Your task to perform on an android device: Is it going to rain tomorrow? Image 0: 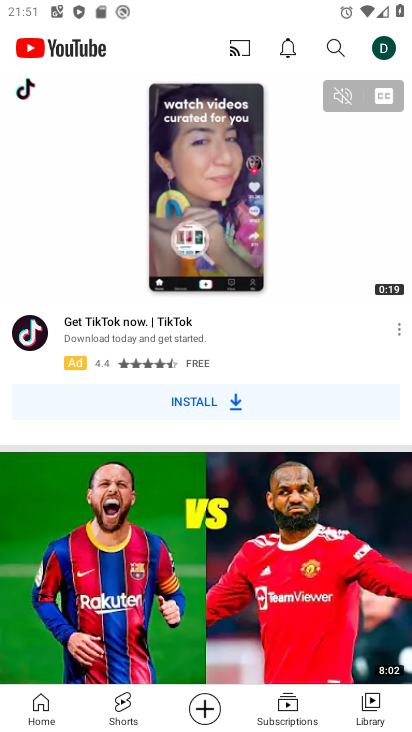
Step 0: press home button
Your task to perform on an android device: Is it going to rain tomorrow? Image 1: 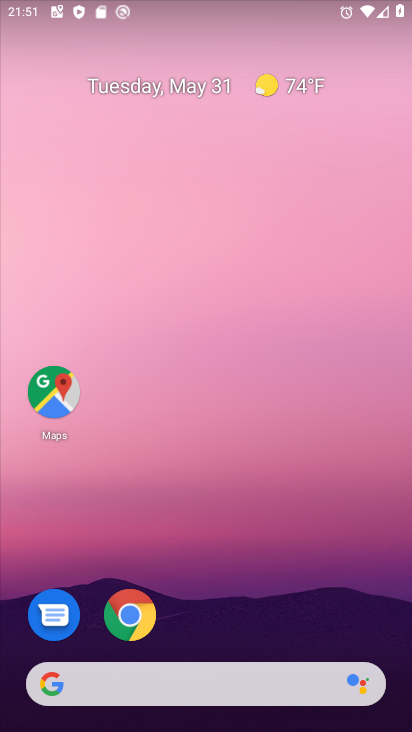
Step 1: drag from (221, 637) to (221, 177)
Your task to perform on an android device: Is it going to rain tomorrow? Image 2: 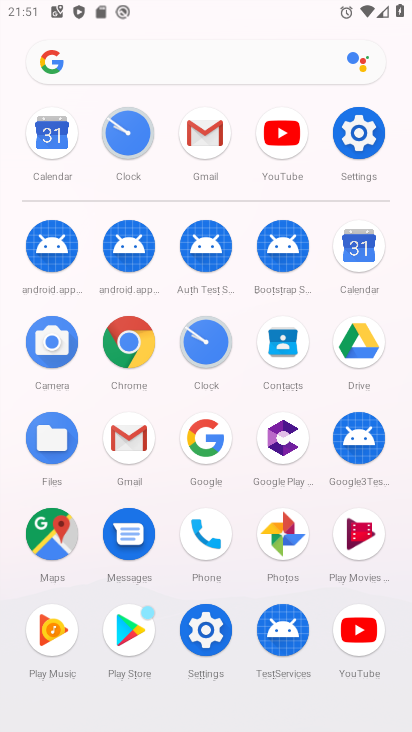
Step 2: click (204, 445)
Your task to perform on an android device: Is it going to rain tomorrow? Image 3: 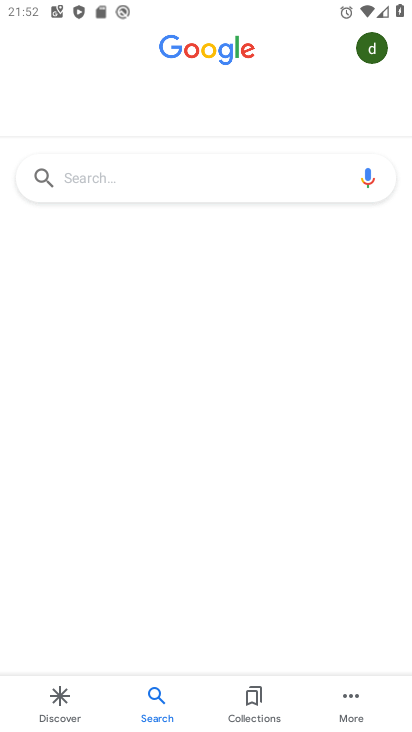
Step 3: click (198, 193)
Your task to perform on an android device: Is it going to rain tomorrow? Image 4: 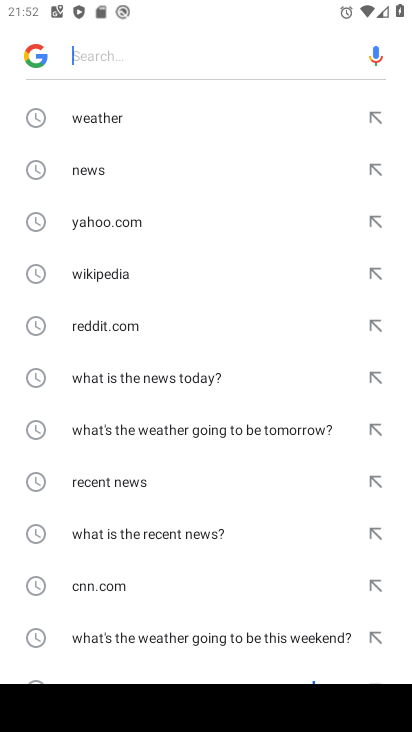
Step 4: click (98, 122)
Your task to perform on an android device: Is it going to rain tomorrow? Image 5: 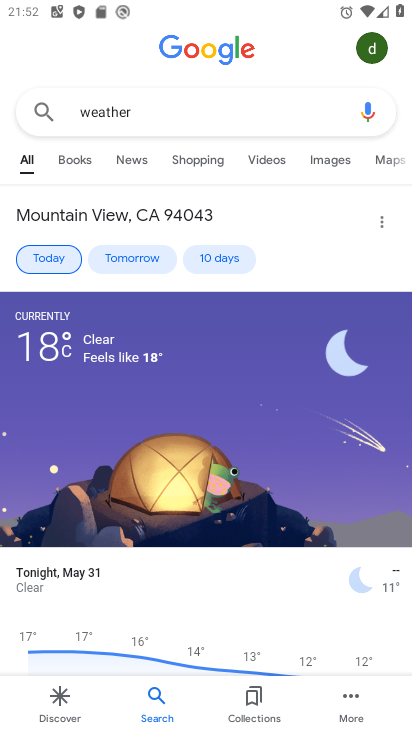
Step 5: click (138, 262)
Your task to perform on an android device: Is it going to rain tomorrow? Image 6: 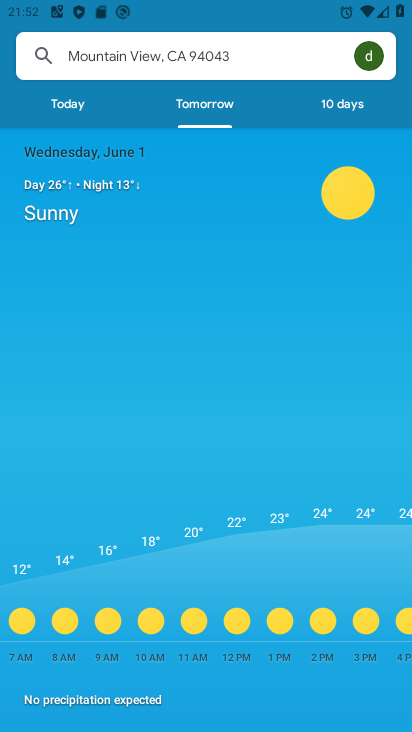
Step 6: task complete